Your task to perform on an android device: Play the last video I watched on Youtube Image 0: 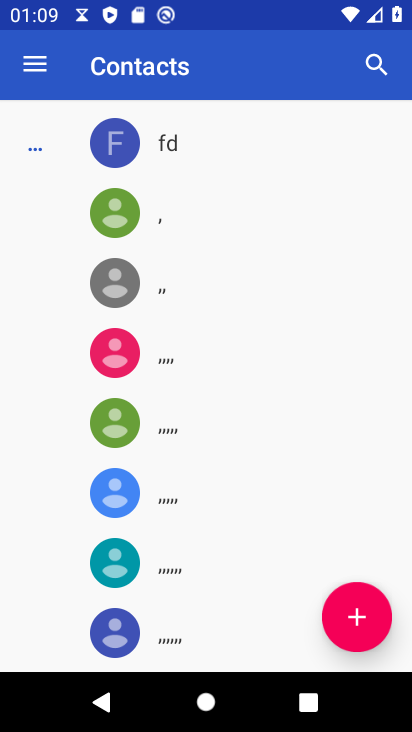
Step 0: press home button
Your task to perform on an android device: Play the last video I watched on Youtube Image 1: 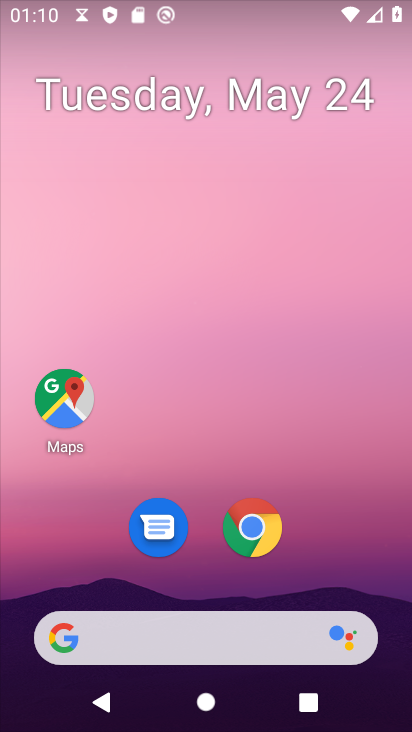
Step 1: drag from (223, 642) to (360, 226)
Your task to perform on an android device: Play the last video I watched on Youtube Image 2: 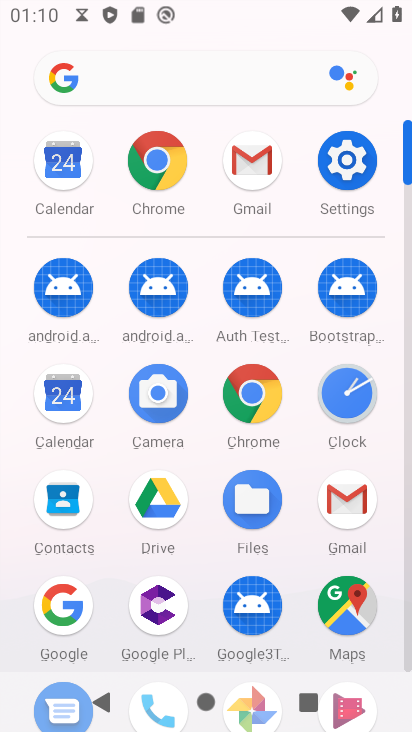
Step 2: drag from (313, 596) to (375, 219)
Your task to perform on an android device: Play the last video I watched on Youtube Image 3: 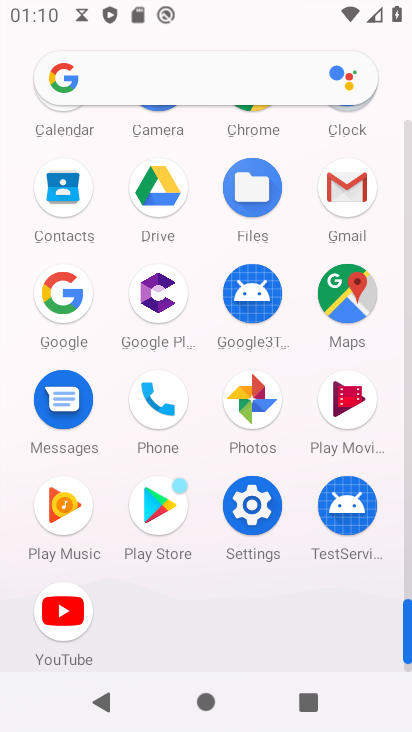
Step 3: click (72, 609)
Your task to perform on an android device: Play the last video I watched on Youtube Image 4: 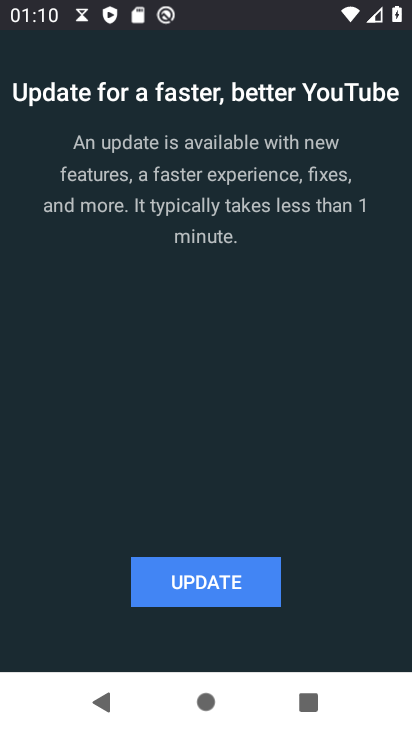
Step 4: click (232, 569)
Your task to perform on an android device: Play the last video I watched on Youtube Image 5: 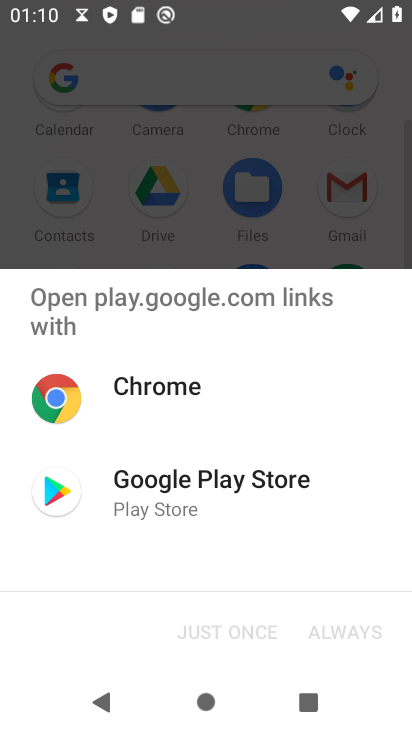
Step 5: click (197, 492)
Your task to perform on an android device: Play the last video I watched on Youtube Image 6: 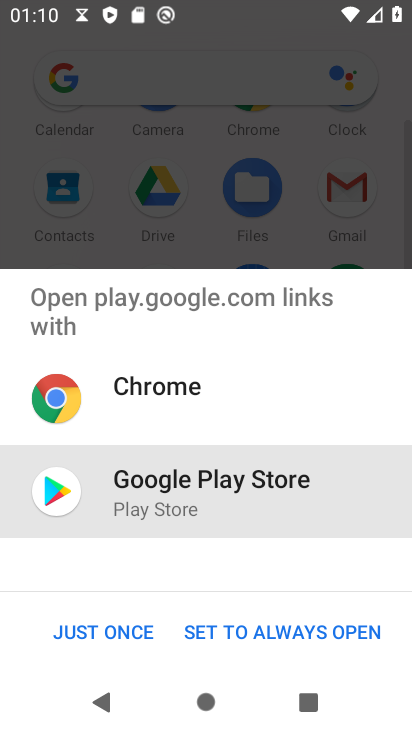
Step 6: click (92, 636)
Your task to perform on an android device: Play the last video I watched on Youtube Image 7: 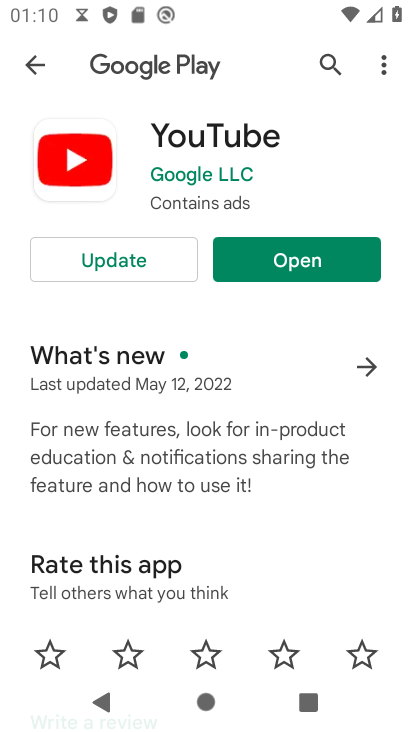
Step 7: click (93, 265)
Your task to perform on an android device: Play the last video I watched on Youtube Image 8: 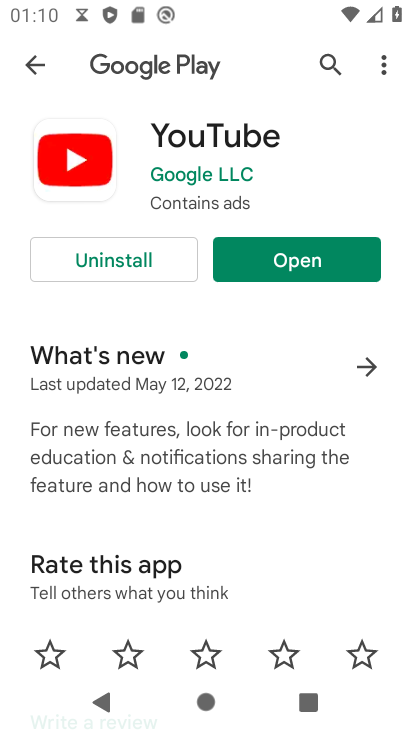
Step 8: click (274, 255)
Your task to perform on an android device: Play the last video I watched on Youtube Image 9: 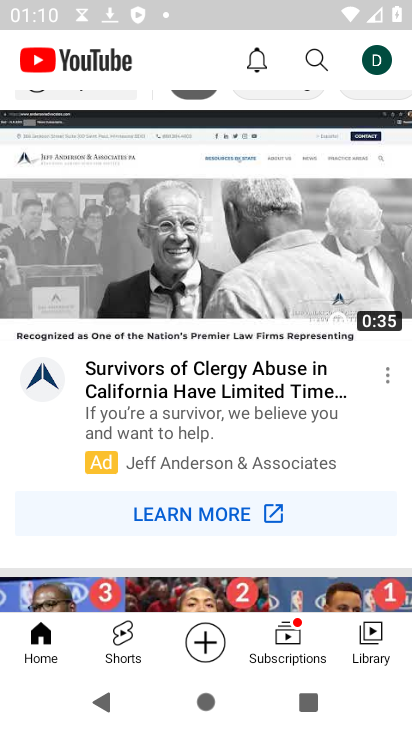
Step 9: click (360, 634)
Your task to perform on an android device: Play the last video I watched on Youtube Image 10: 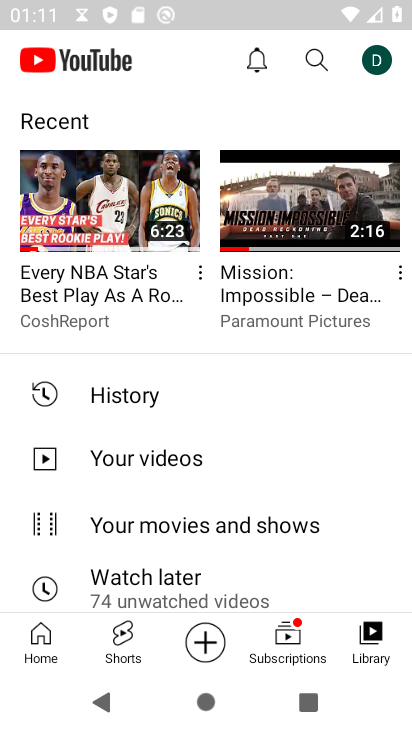
Step 10: click (148, 224)
Your task to perform on an android device: Play the last video I watched on Youtube Image 11: 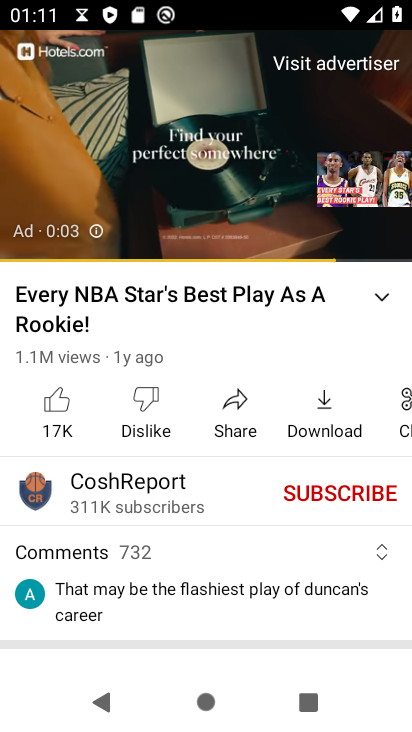
Step 11: click (236, 154)
Your task to perform on an android device: Play the last video I watched on Youtube Image 12: 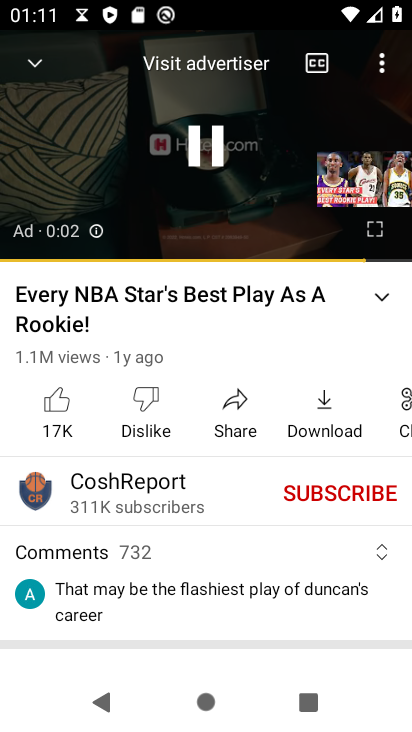
Step 12: click (236, 154)
Your task to perform on an android device: Play the last video I watched on Youtube Image 13: 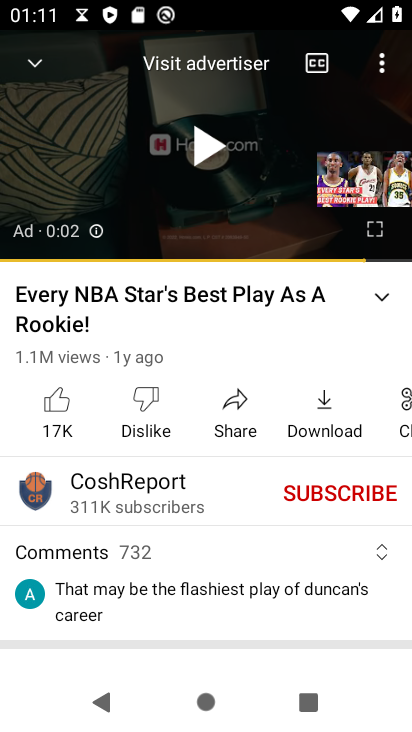
Step 13: task complete